Your task to perform on an android device: Open the Play Movies app and select the watchlist tab. Image 0: 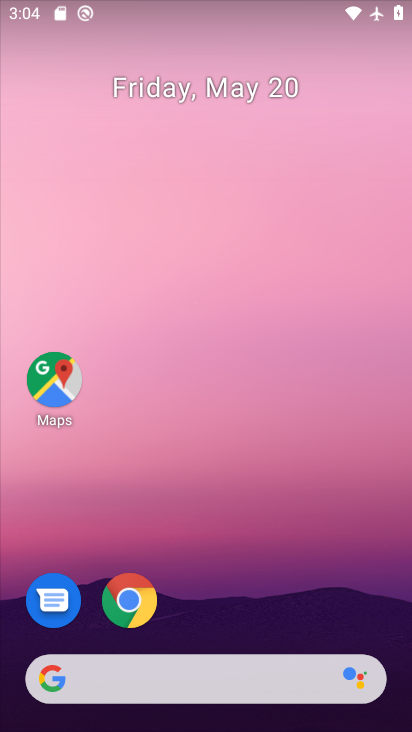
Step 0: drag from (289, 438) to (221, 27)
Your task to perform on an android device: Open the Play Movies app and select the watchlist tab. Image 1: 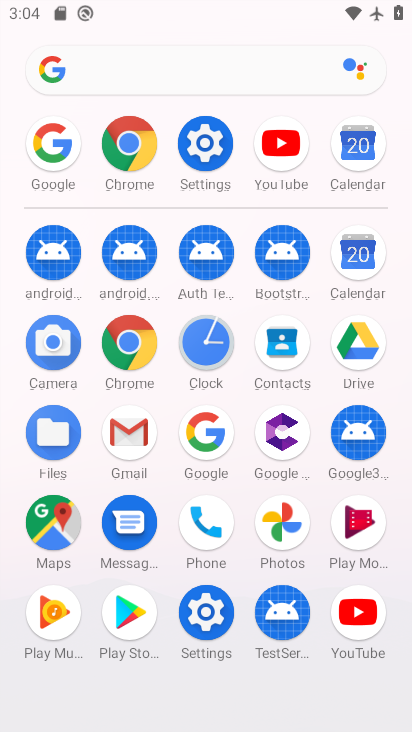
Step 1: click (350, 540)
Your task to perform on an android device: Open the Play Movies app and select the watchlist tab. Image 2: 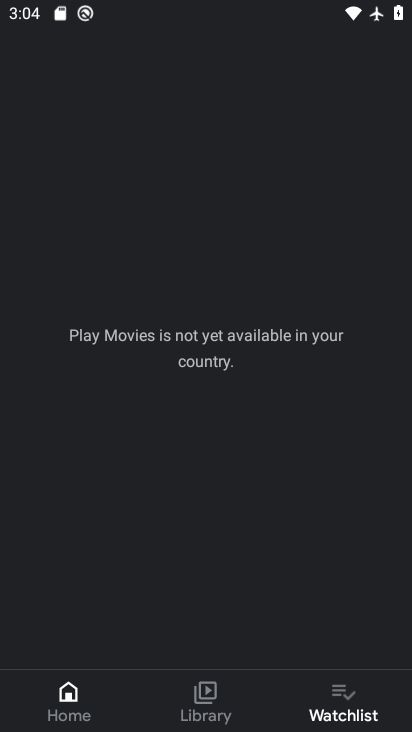
Step 2: task complete